Your task to perform on an android device: turn on the 24-hour format for clock Image 0: 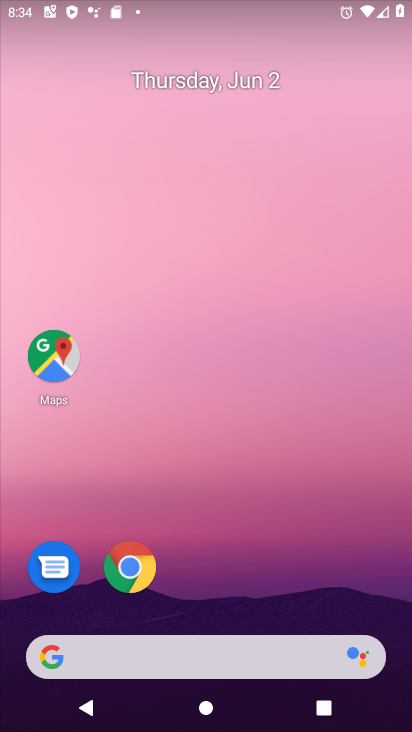
Step 0: drag from (247, 566) to (231, 148)
Your task to perform on an android device: turn on the 24-hour format for clock Image 1: 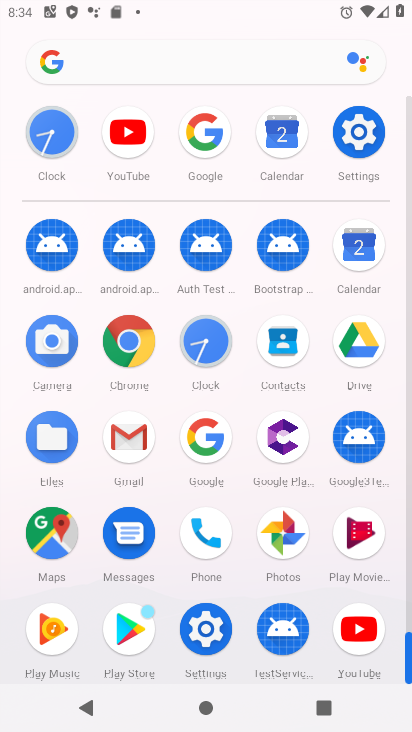
Step 1: click (207, 340)
Your task to perform on an android device: turn on the 24-hour format for clock Image 2: 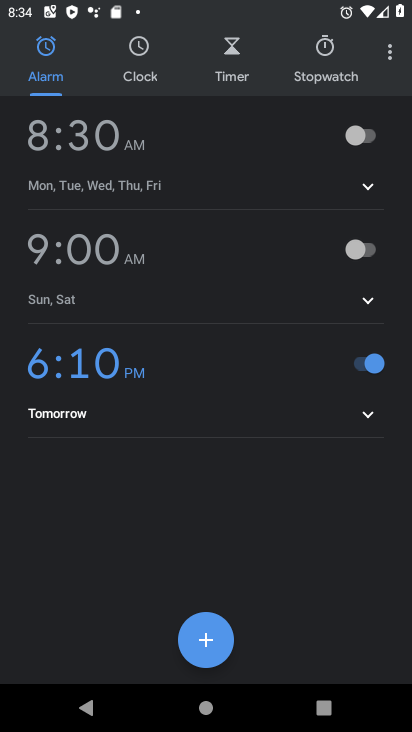
Step 2: click (390, 49)
Your task to perform on an android device: turn on the 24-hour format for clock Image 3: 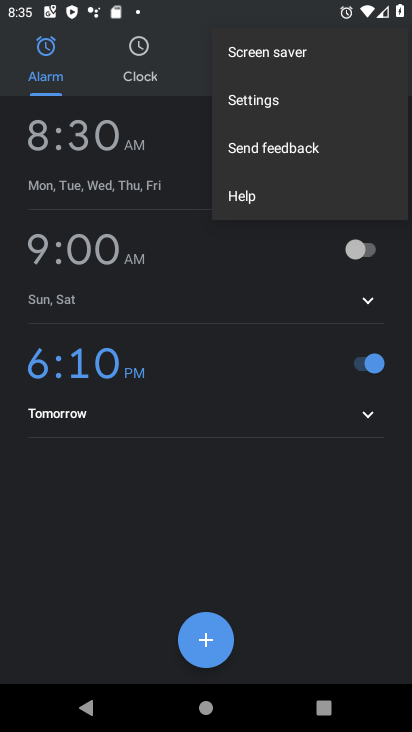
Step 3: click (264, 98)
Your task to perform on an android device: turn on the 24-hour format for clock Image 4: 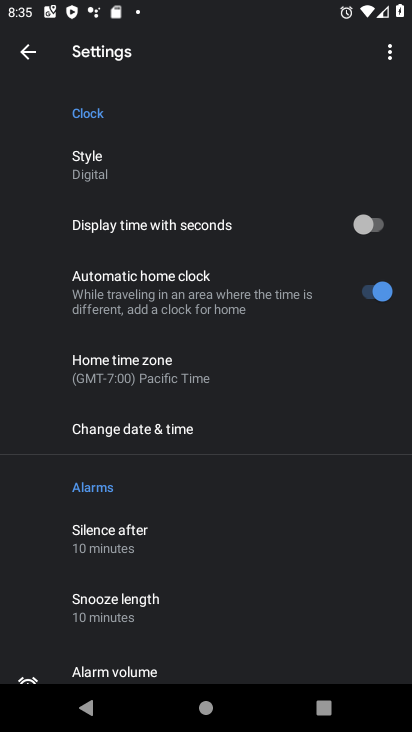
Step 4: click (141, 429)
Your task to perform on an android device: turn on the 24-hour format for clock Image 5: 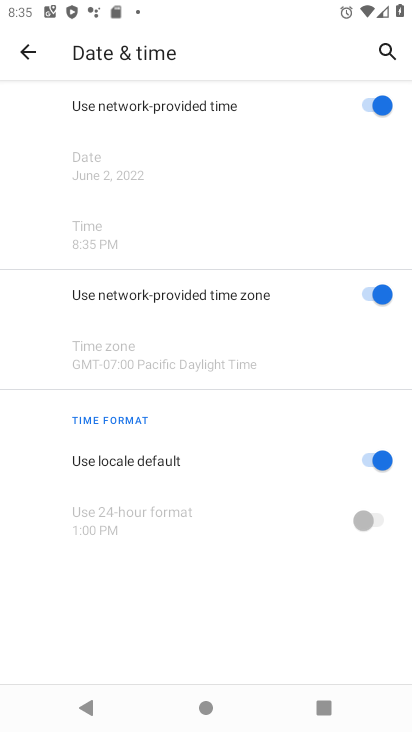
Step 5: click (364, 463)
Your task to perform on an android device: turn on the 24-hour format for clock Image 6: 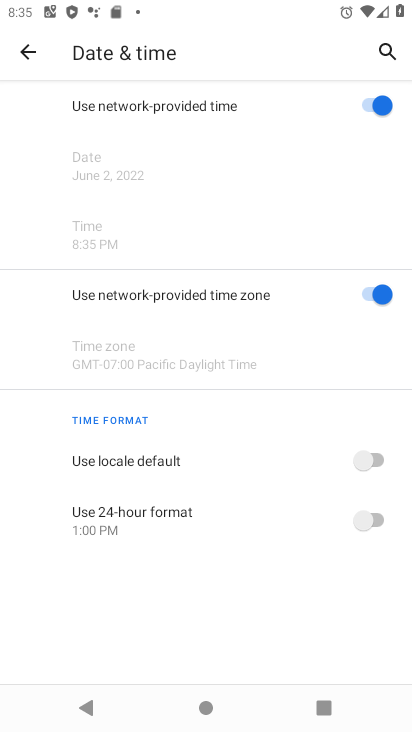
Step 6: click (383, 524)
Your task to perform on an android device: turn on the 24-hour format for clock Image 7: 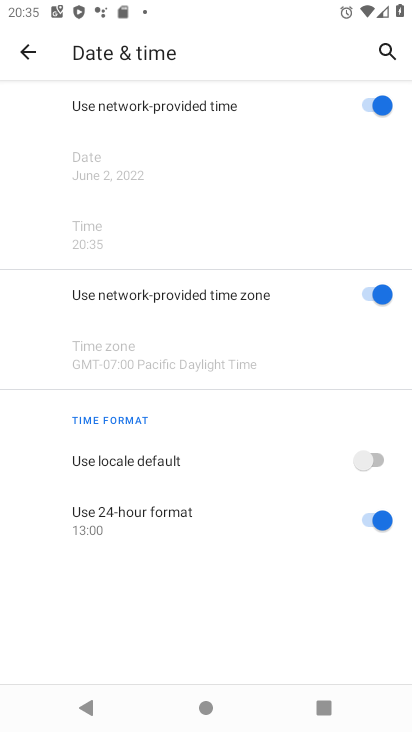
Step 7: task complete